Your task to perform on an android device: Open calendar and show me the fourth week of next month Image 0: 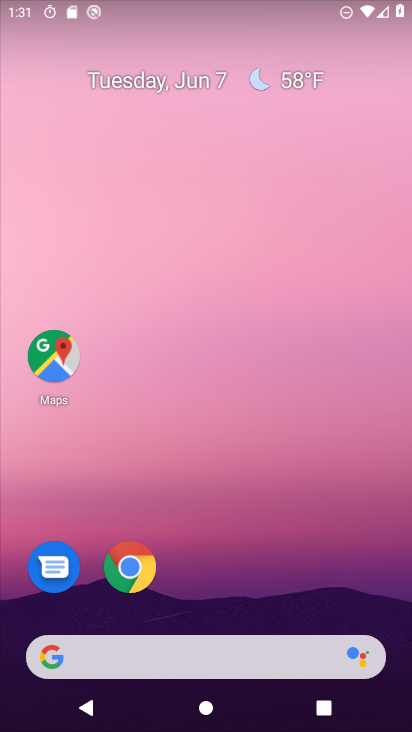
Step 0: drag from (387, 710) to (336, 94)
Your task to perform on an android device: Open calendar and show me the fourth week of next month Image 1: 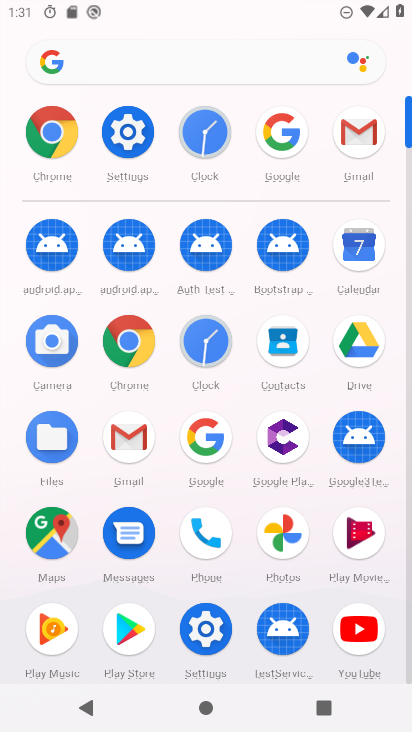
Step 1: click (356, 233)
Your task to perform on an android device: Open calendar and show me the fourth week of next month Image 2: 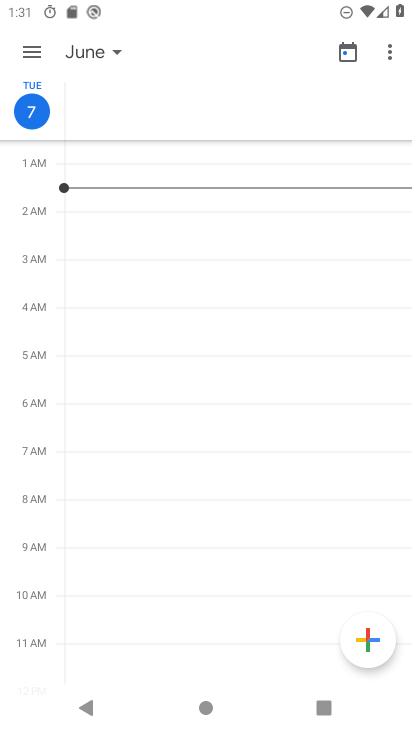
Step 2: click (113, 55)
Your task to perform on an android device: Open calendar and show me the fourth week of next month Image 3: 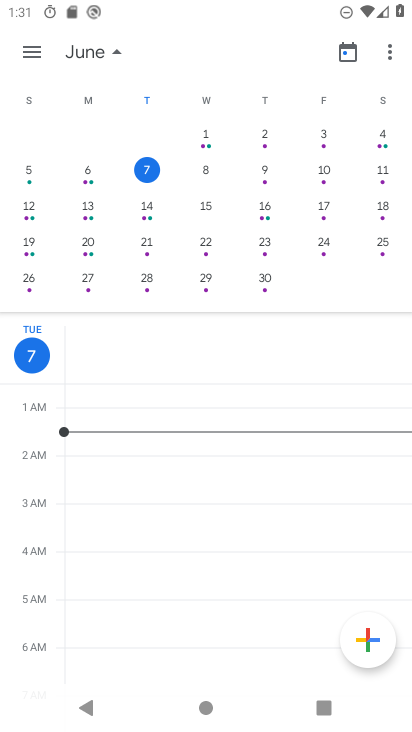
Step 3: drag from (386, 223) to (59, 171)
Your task to perform on an android device: Open calendar and show me the fourth week of next month Image 4: 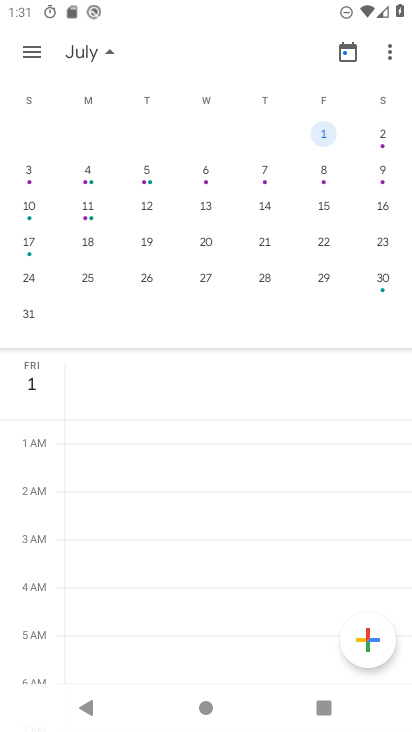
Step 4: click (323, 237)
Your task to perform on an android device: Open calendar and show me the fourth week of next month Image 5: 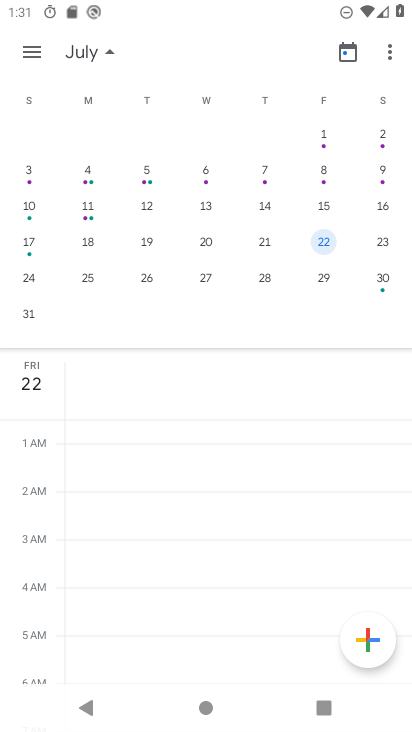
Step 5: task complete